Your task to perform on an android device: find photos in the google photos app Image 0: 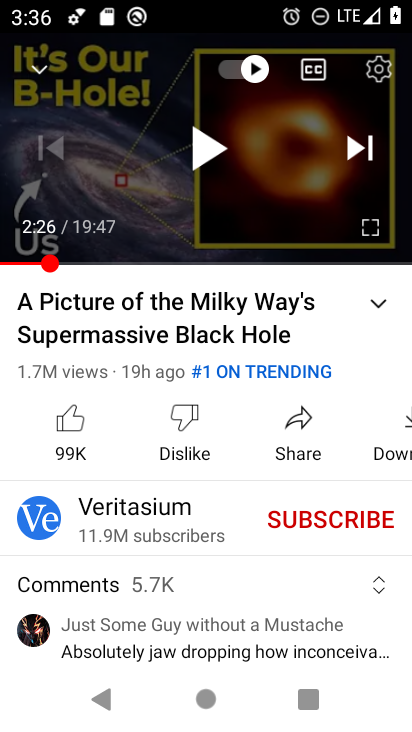
Step 0: press home button
Your task to perform on an android device: find photos in the google photos app Image 1: 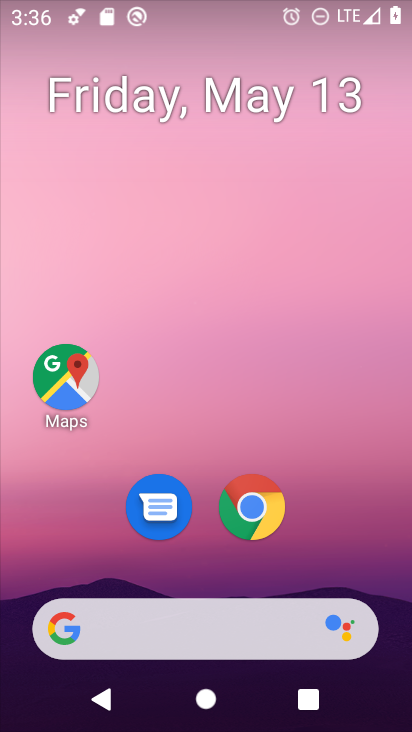
Step 1: drag from (338, 547) to (346, 456)
Your task to perform on an android device: find photos in the google photos app Image 2: 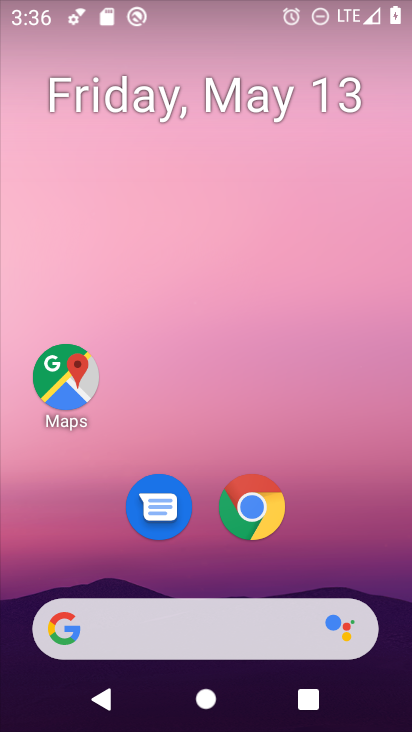
Step 2: drag from (338, 470) to (411, 5)
Your task to perform on an android device: find photos in the google photos app Image 3: 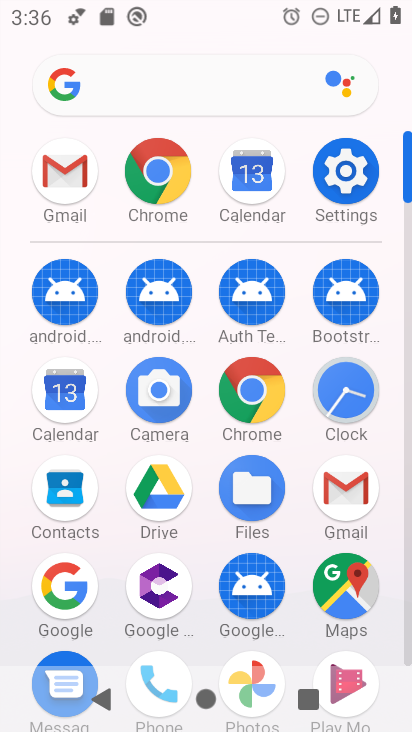
Step 3: drag from (272, 603) to (373, 185)
Your task to perform on an android device: find photos in the google photos app Image 4: 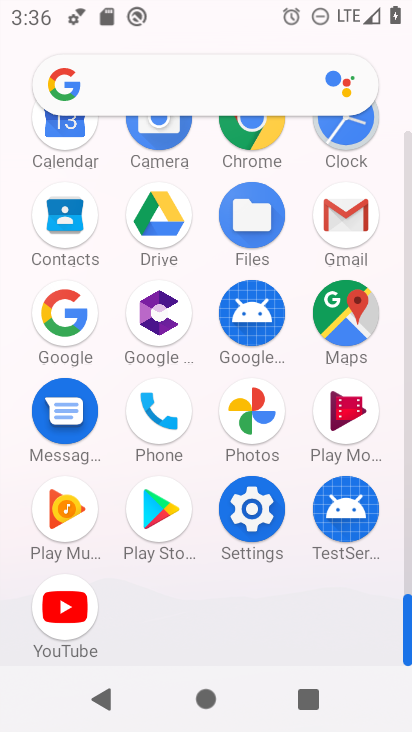
Step 4: click (254, 425)
Your task to perform on an android device: find photos in the google photos app Image 5: 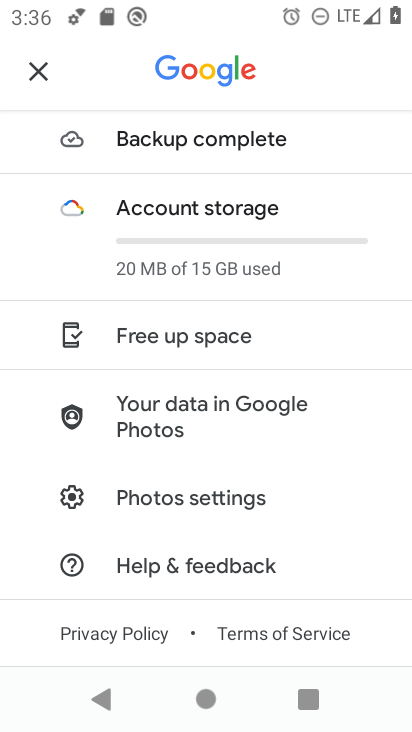
Step 5: task complete